Your task to perform on an android device: What's on my calendar today? Image 0: 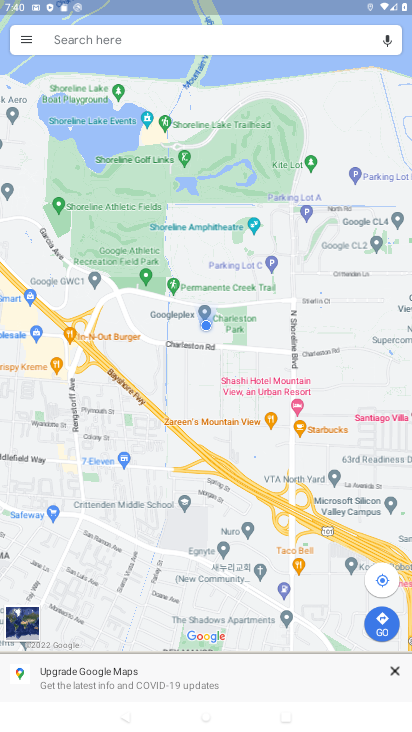
Step 0: press home button
Your task to perform on an android device: What's on my calendar today? Image 1: 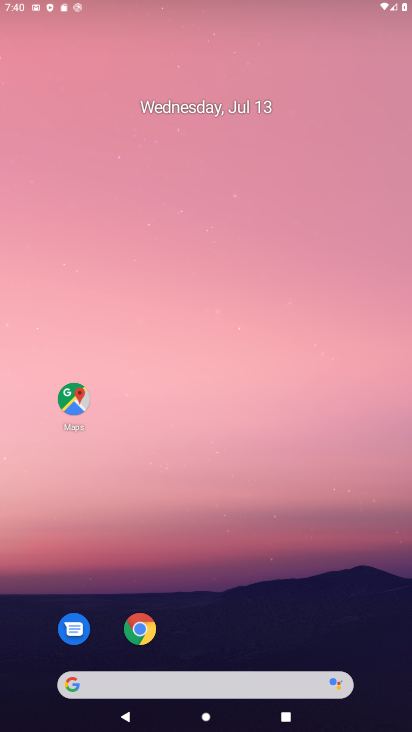
Step 1: drag from (222, 651) to (197, 132)
Your task to perform on an android device: What's on my calendar today? Image 2: 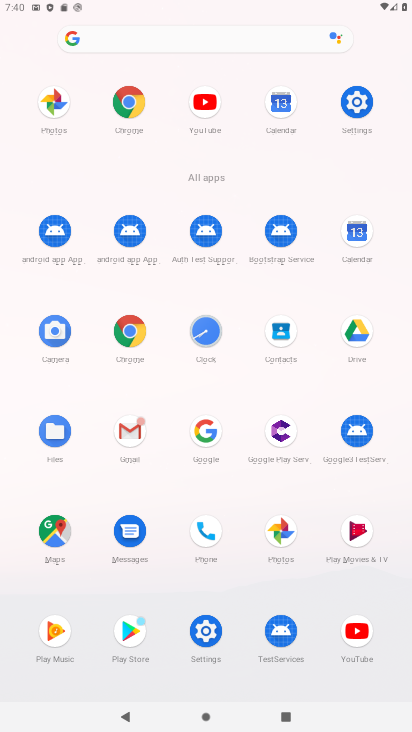
Step 2: click (354, 224)
Your task to perform on an android device: What's on my calendar today? Image 3: 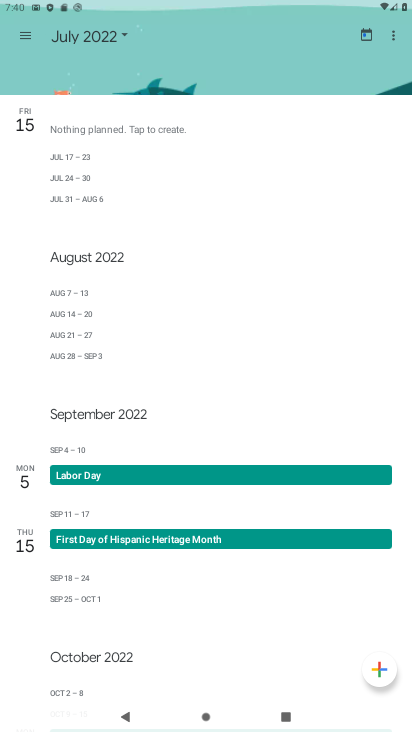
Step 3: click (108, 34)
Your task to perform on an android device: What's on my calendar today? Image 4: 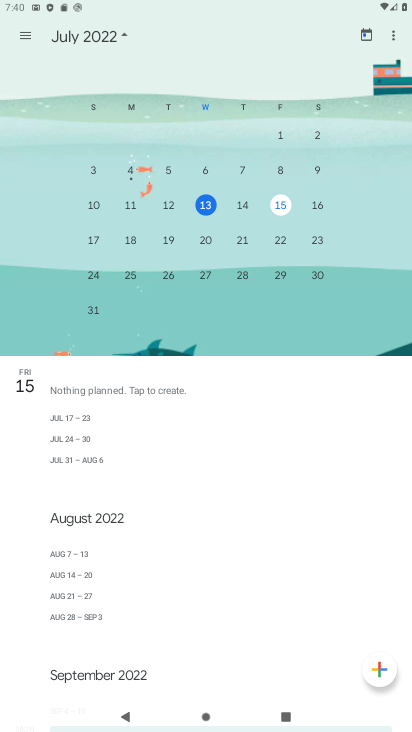
Step 4: click (208, 200)
Your task to perform on an android device: What's on my calendar today? Image 5: 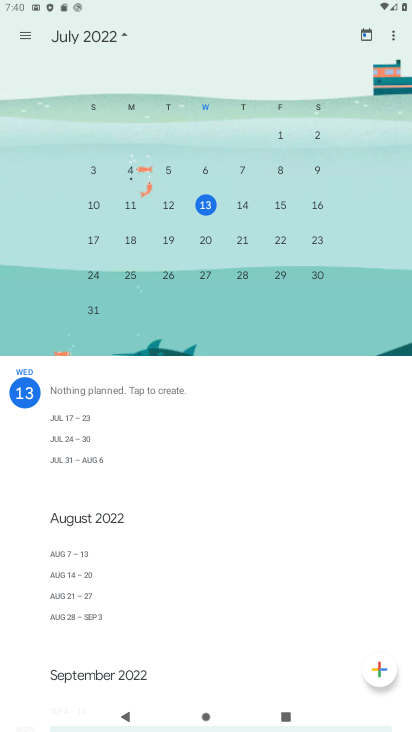
Step 5: task complete